Your task to perform on an android device: open device folders in google photos Image 0: 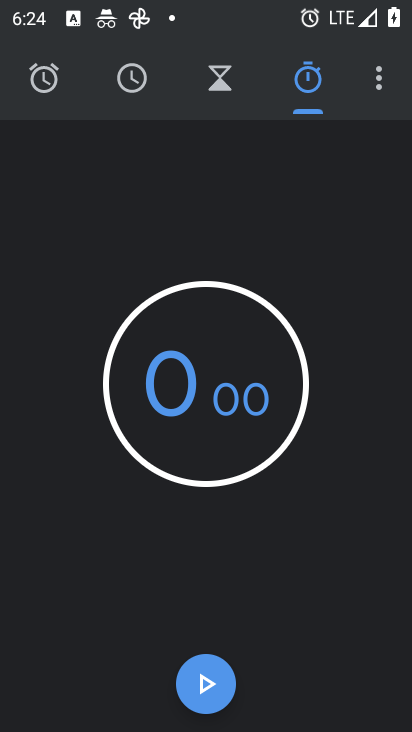
Step 0: press home button
Your task to perform on an android device: open device folders in google photos Image 1: 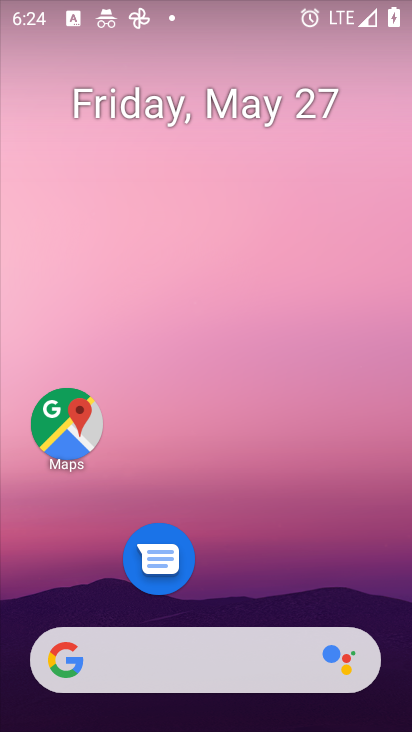
Step 1: drag from (264, 655) to (337, 0)
Your task to perform on an android device: open device folders in google photos Image 2: 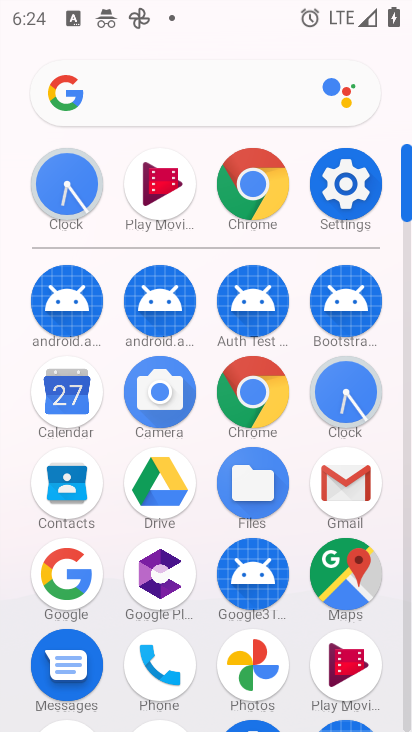
Step 2: click (261, 662)
Your task to perform on an android device: open device folders in google photos Image 3: 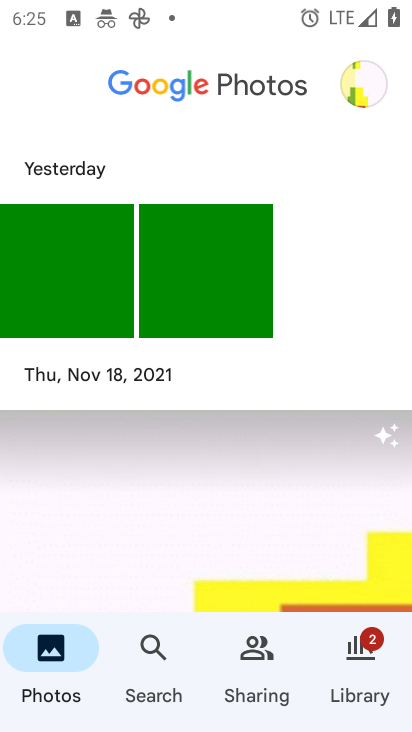
Step 3: click (373, 72)
Your task to perform on an android device: open device folders in google photos Image 4: 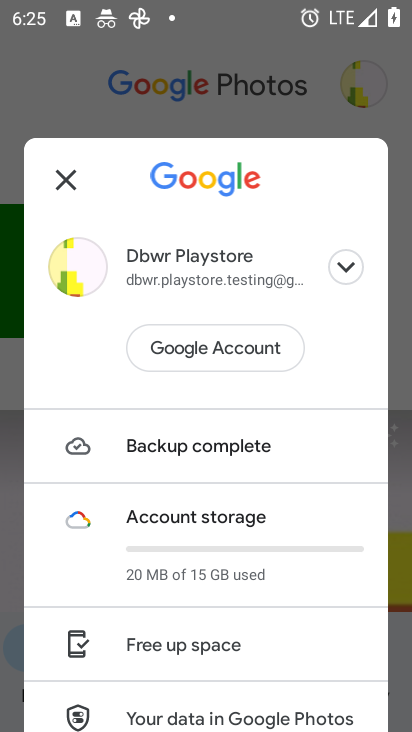
Step 4: task complete